Your task to perform on an android device: Search for logitech g502 on walmart.com, select the first entry, and add it to the cart. Image 0: 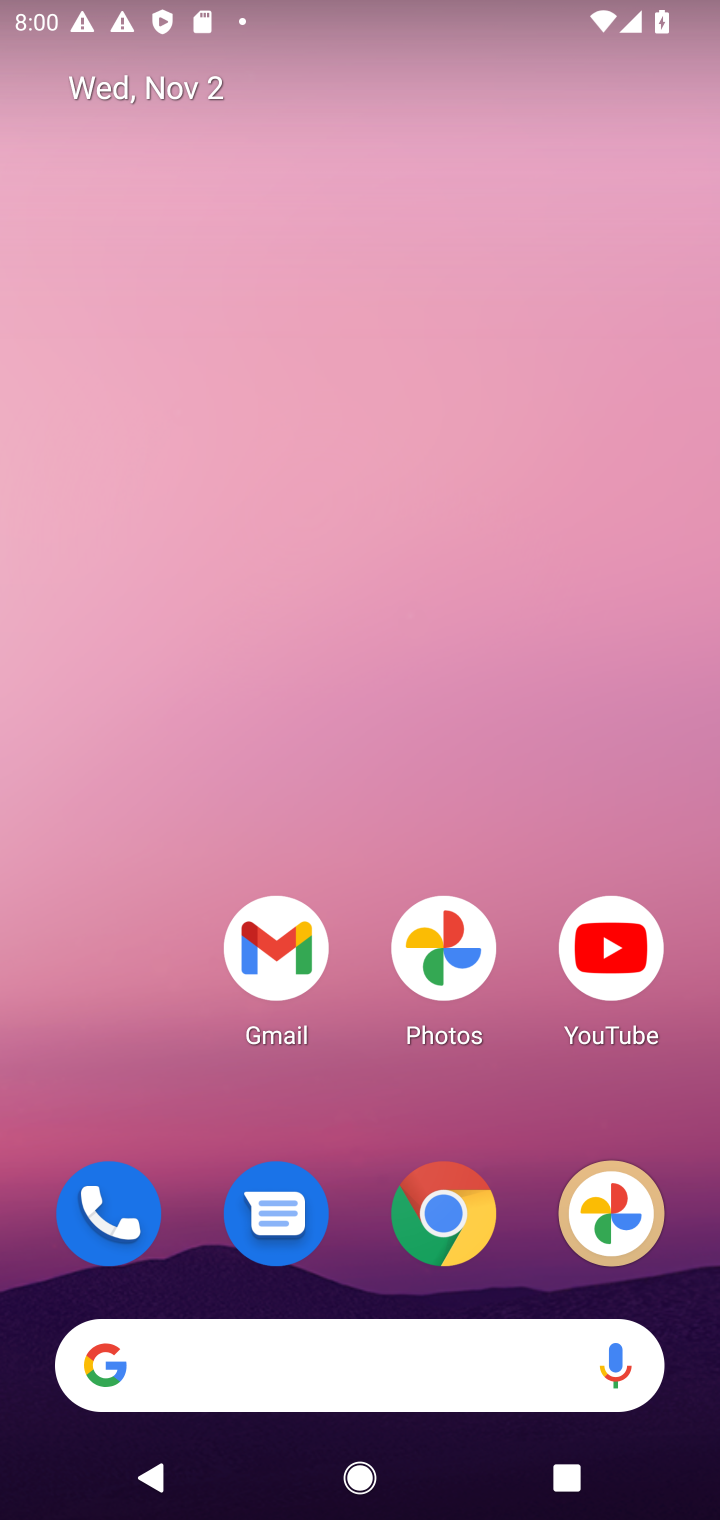
Step 0: click (445, 1233)
Your task to perform on an android device: Search for logitech g502 on walmart.com, select the first entry, and add it to the cart. Image 1: 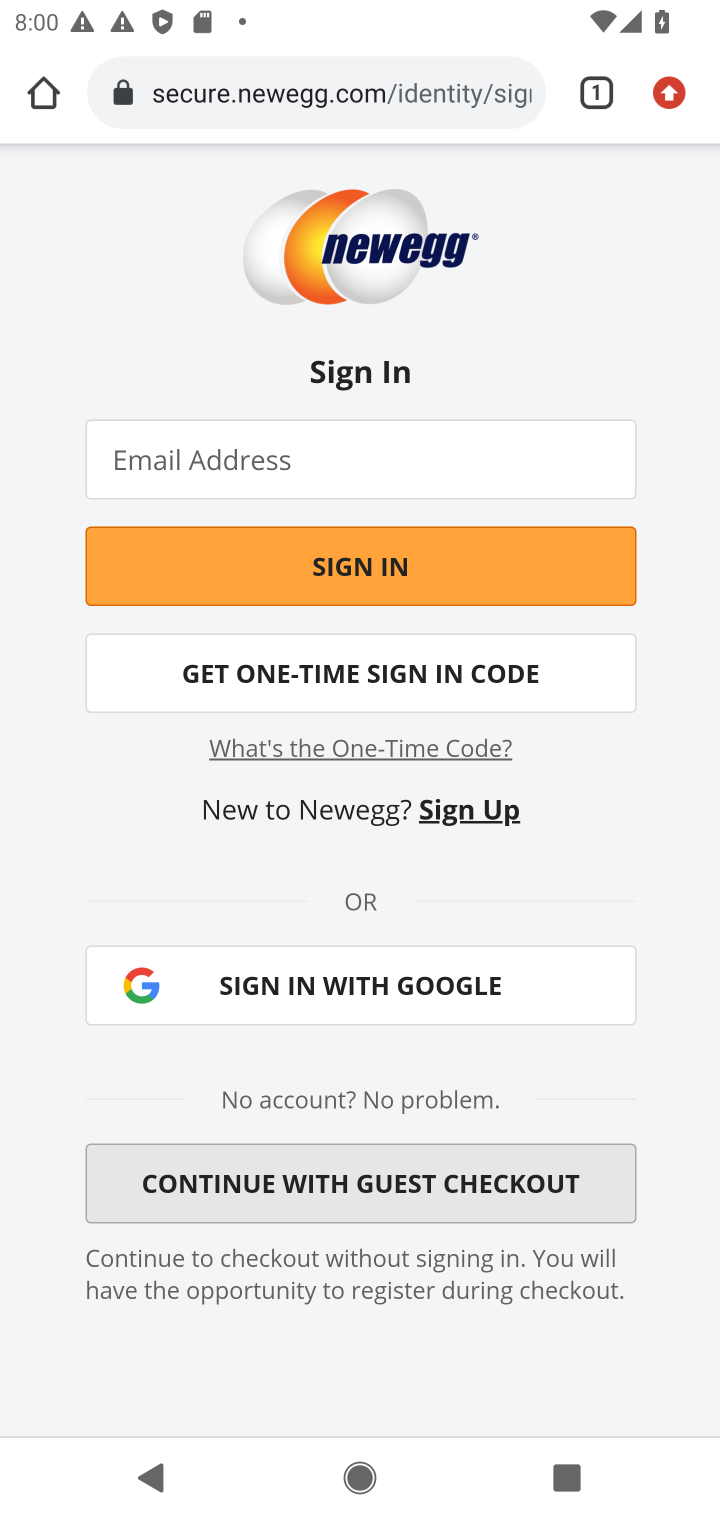
Step 1: click (230, 108)
Your task to perform on an android device: Search for logitech g502 on walmart.com, select the first entry, and add it to the cart. Image 2: 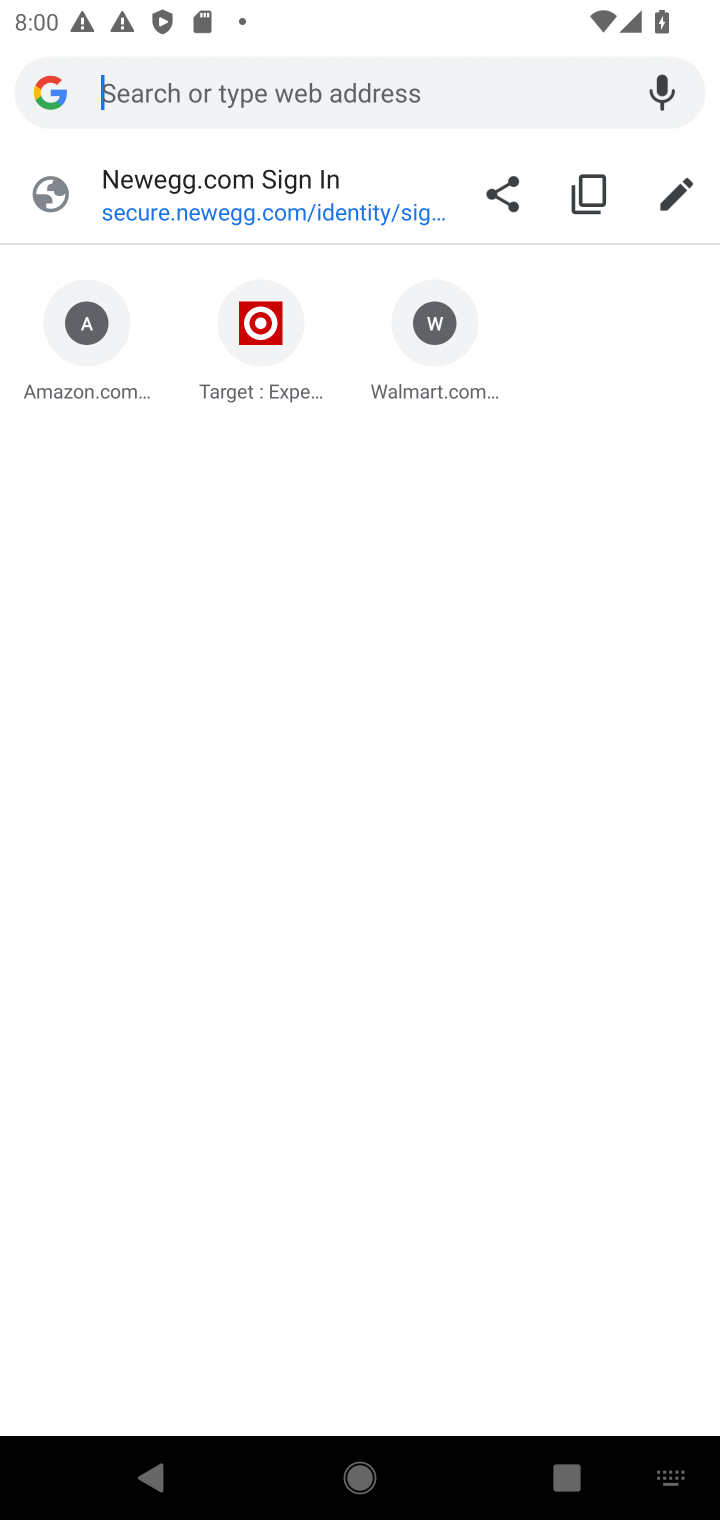
Step 2: type "walmart.com"
Your task to perform on an android device: Search for logitech g502 on walmart.com, select the first entry, and add it to the cart. Image 3: 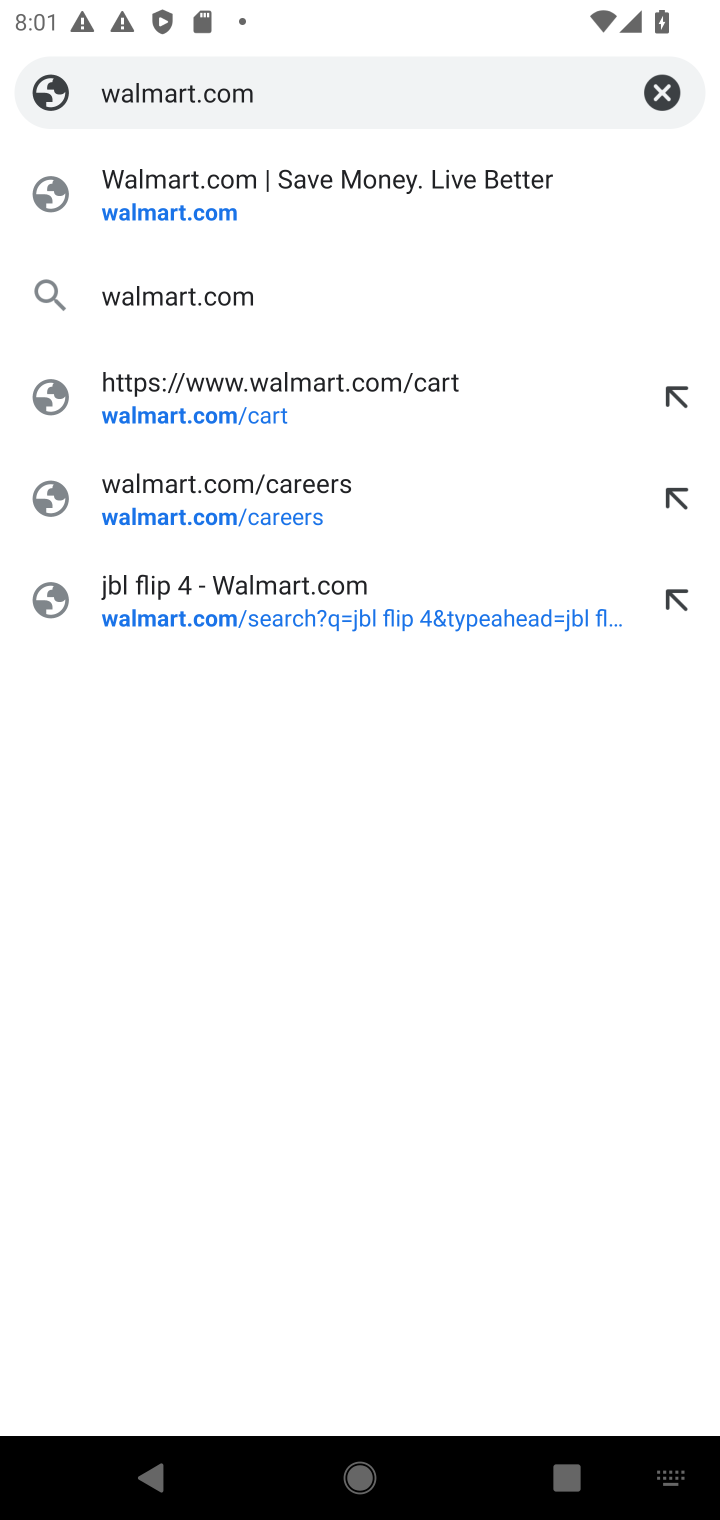
Step 3: click (194, 214)
Your task to perform on an android device: Search for logitech g502 on walmart.com, select the first entry, and add it to the cart. Image 4: 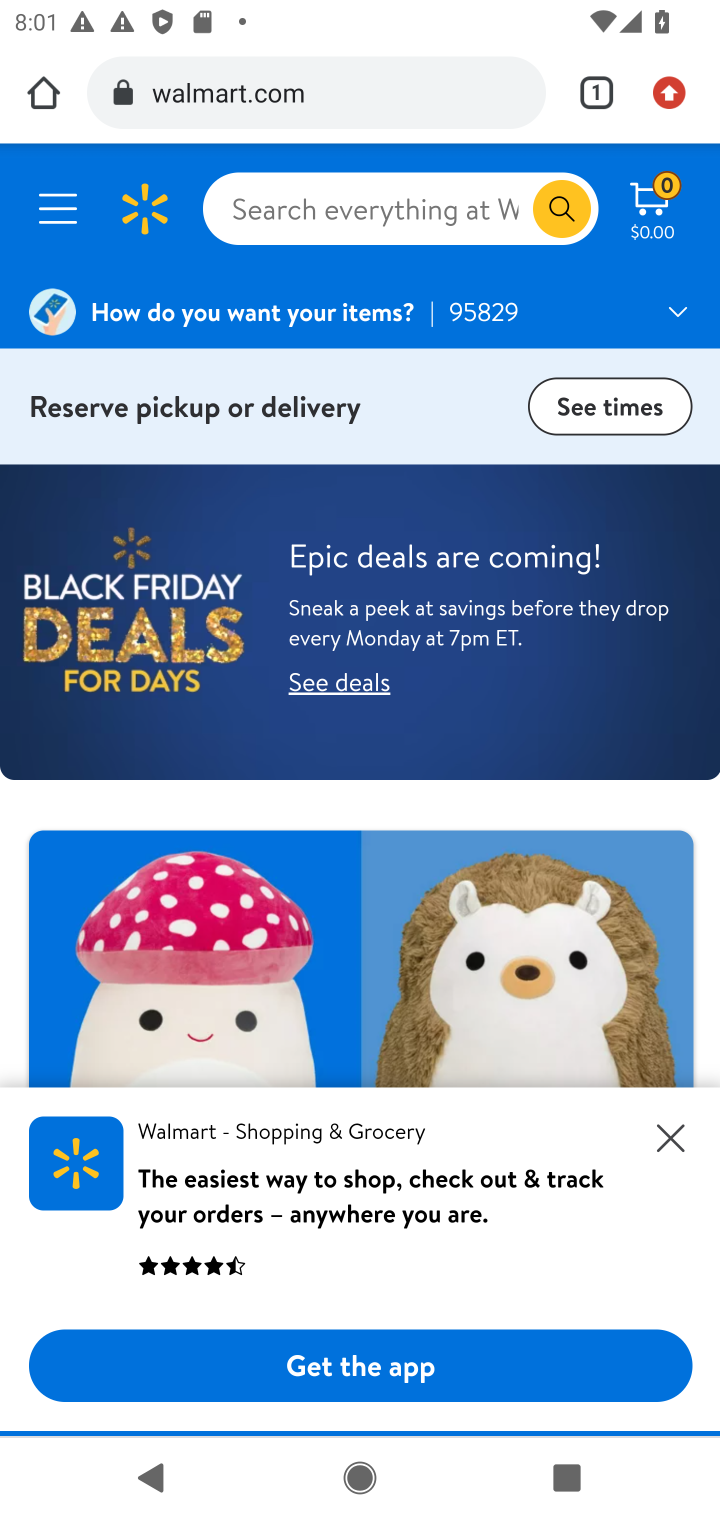
Step 4: click (336, 224)
Your task to perform on an android device: Search for logitech g502 on walmart.com, select the first entry, and add it to the cart. Image 5: 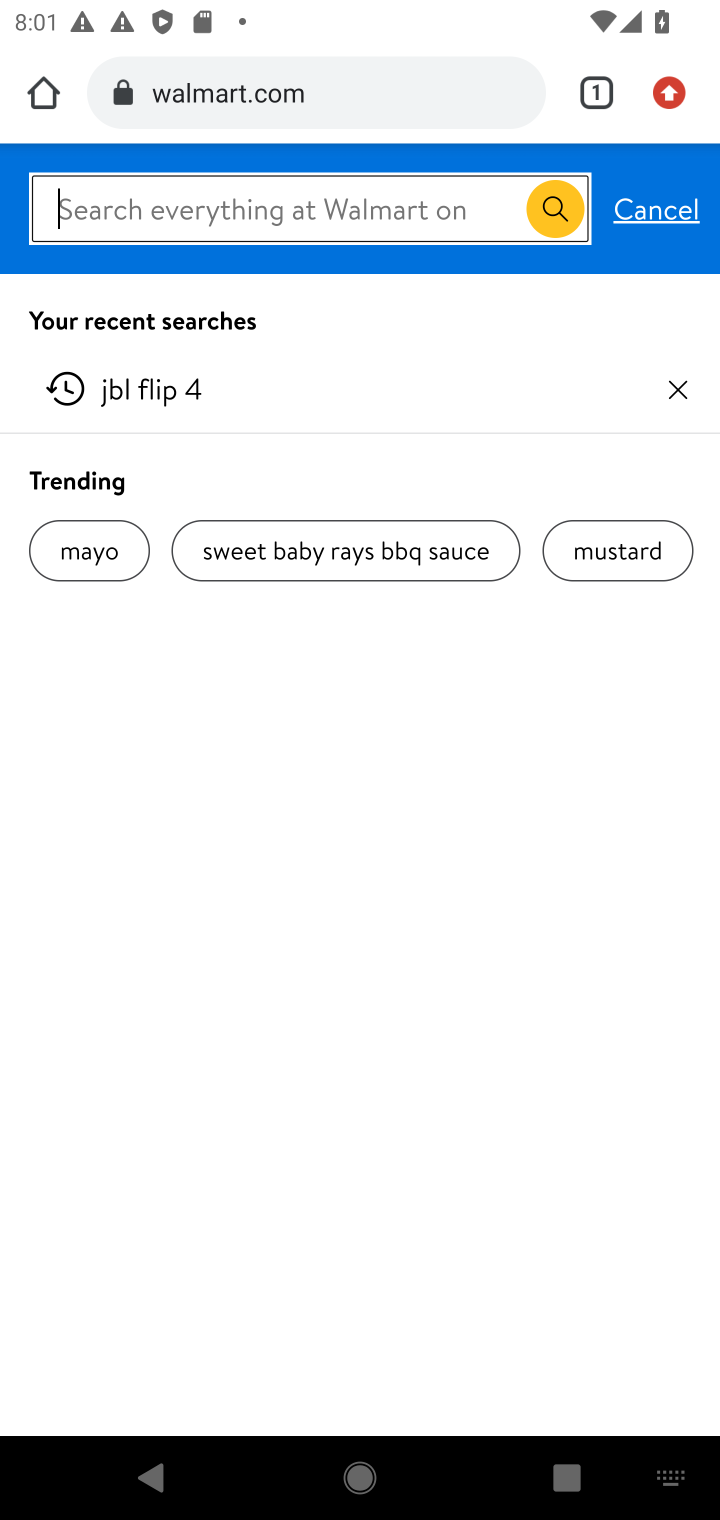
Step 5: type " logitech g502"
Your task to perform on an android device: Search for logitech g502 on walmart.com, select the first entry, and add it to the cart. Image 6: 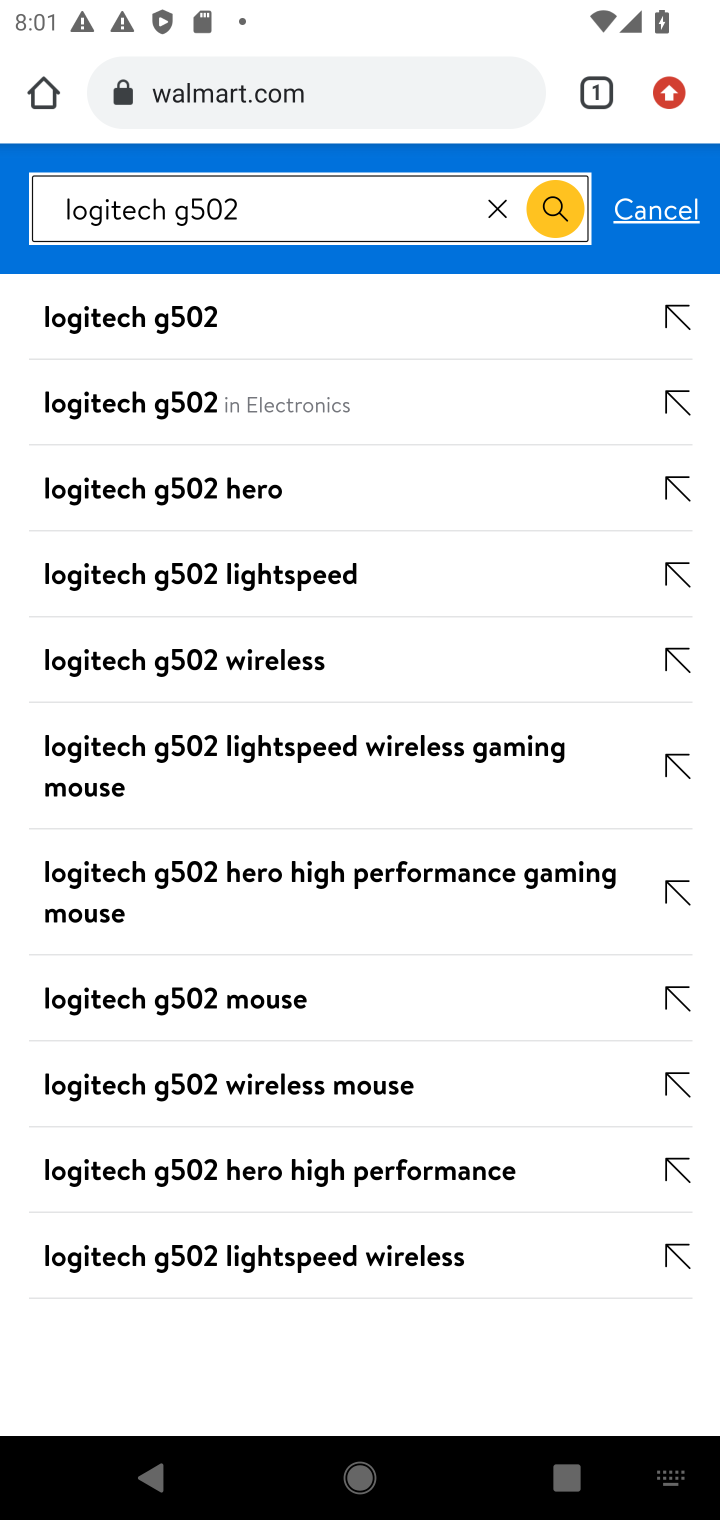
Step 6: click (123, 331)
Your task to perform on an android device: Search for logitech g502 on walmart.com, select the first entry, and add it to the cart. Image 7: 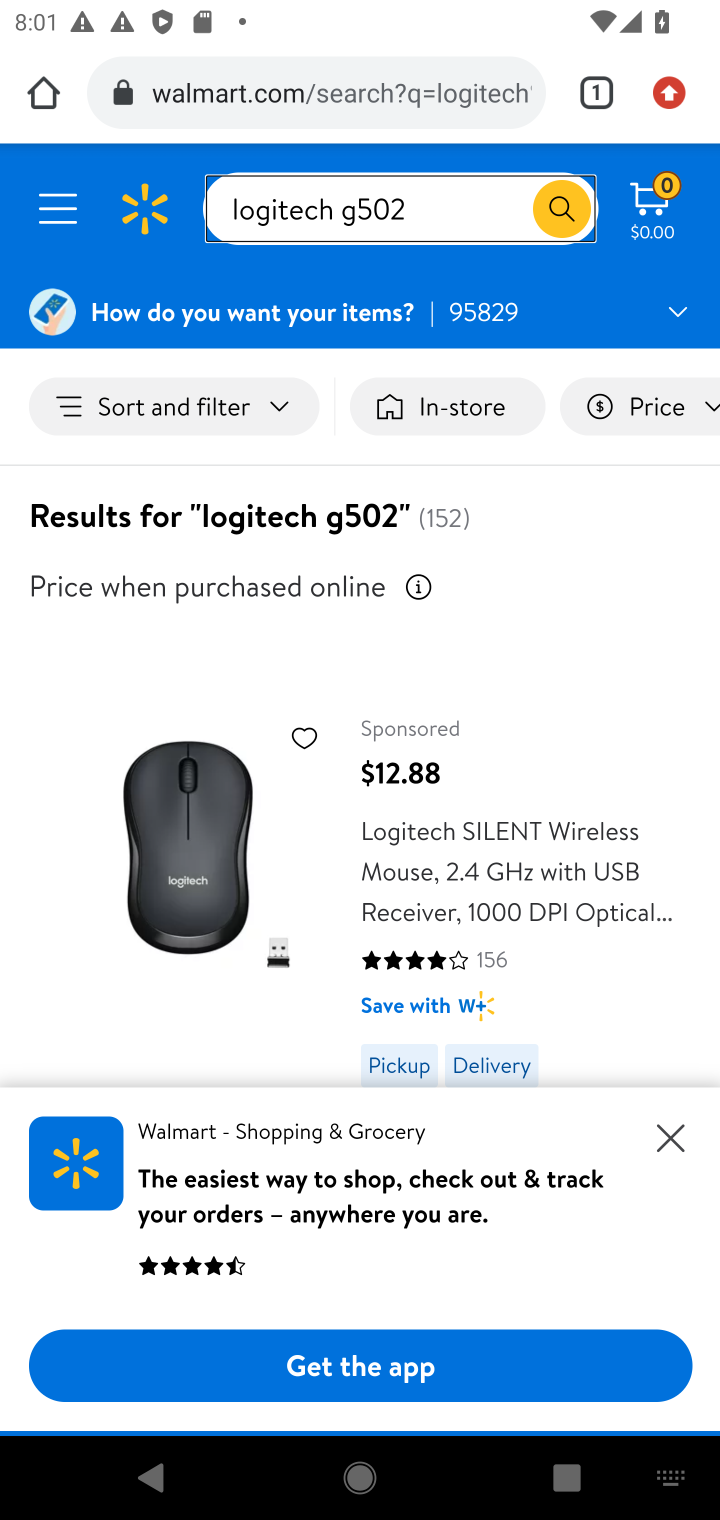
Step 7: drag from (336, 893) to (363, 680)
Your task to perform on an android device: Search for logitech g502 on walmart.com, select the first entry, and add it to the cart. Image 8: 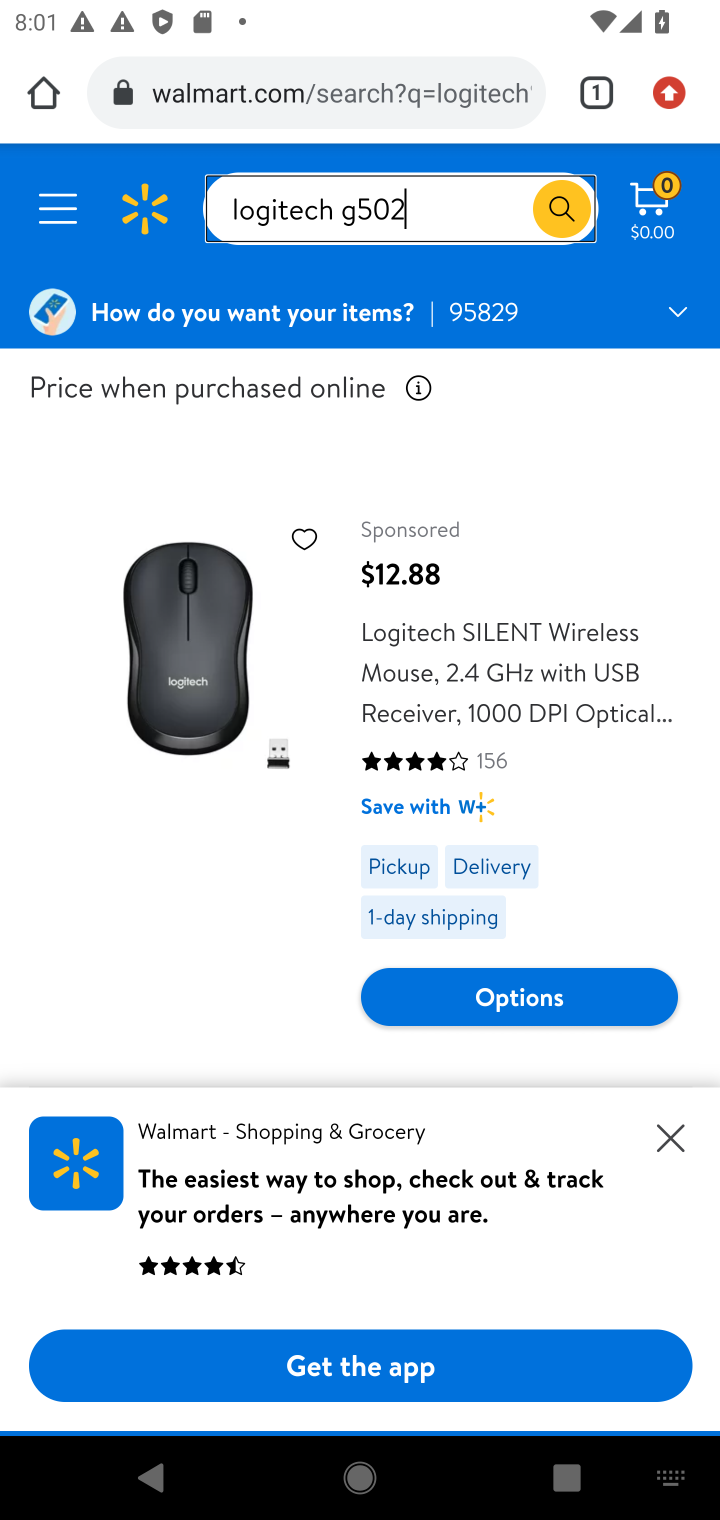
Step 8: click (361, 715)
Your task to perform on an android device: Search for logitech g502 on walmart.com, select the first entry, and add it to the cart. Image 9: 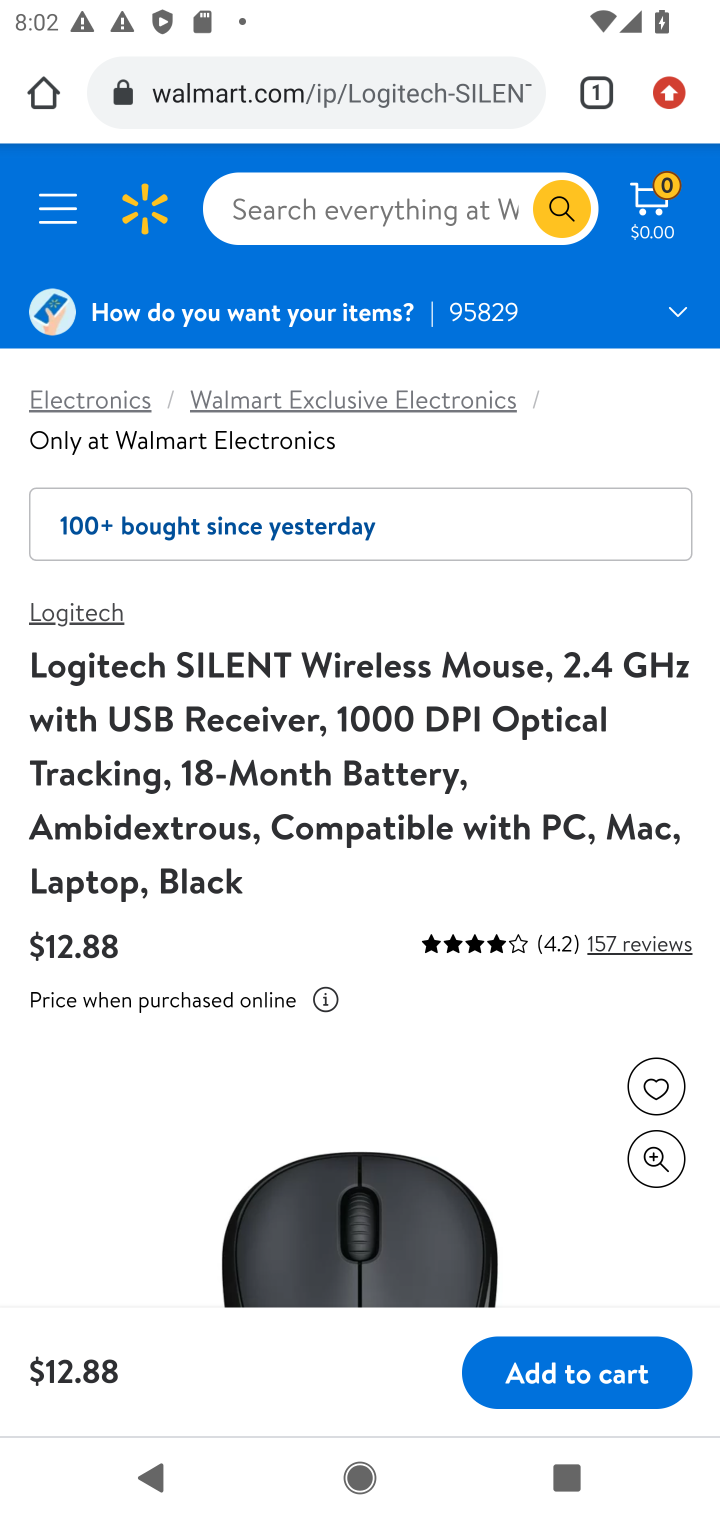
Step 9: task complete